Your task to perform on an android device: change the upload size in google photos Image 0: 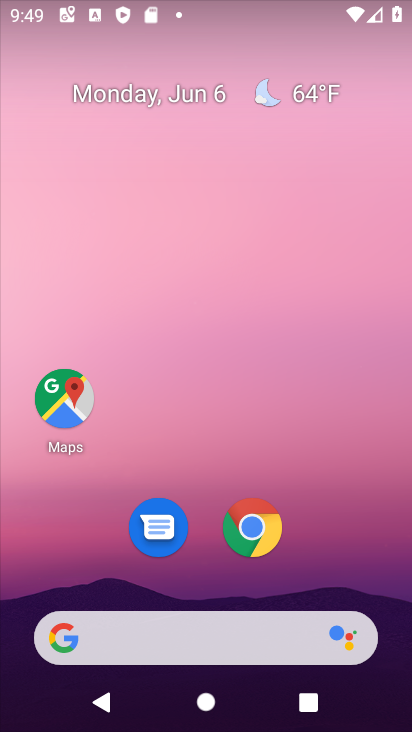
Step 0: drag from (220, 597) to (318, 217)
Your task to perform on an android device: change the upload size in google photos Image 1: 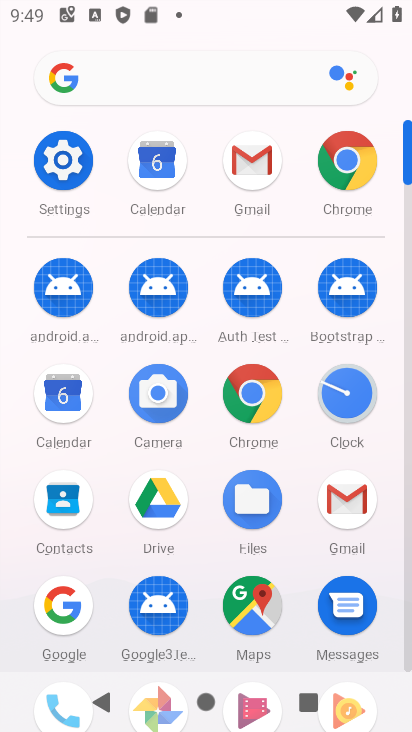
Step 1: drag from (278, 547) to (300, 301)
Your task to perform on an android device: change the upload size in google photos Image 2: 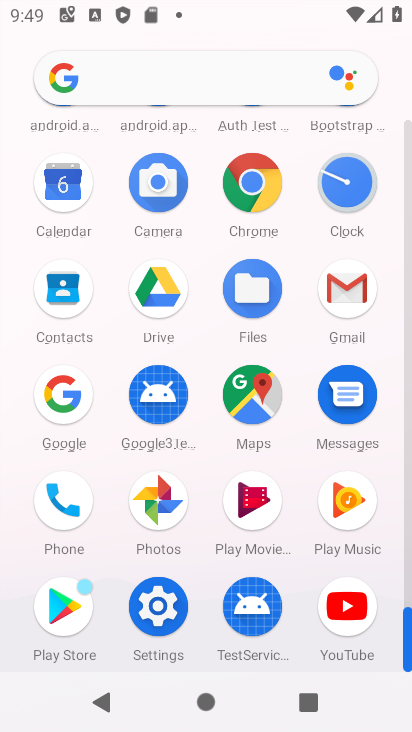
Step 2: click (137, 524)
Your task to perform on an android device: change the upload size in google photos Image 3: 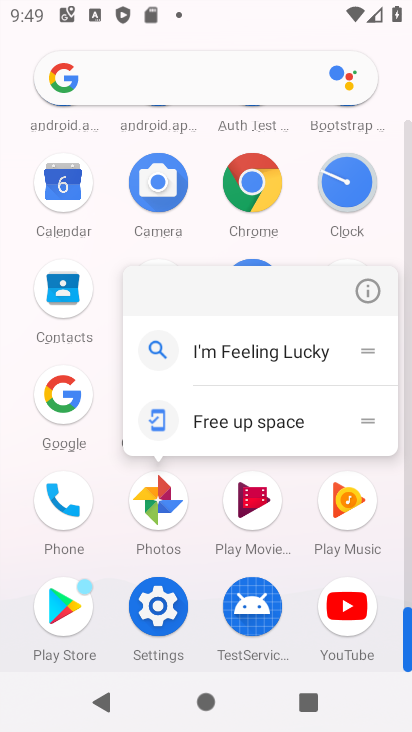
Step 3: click (137, 524)
Your task to perform on an android device: change the upload size in google photos Image 4: 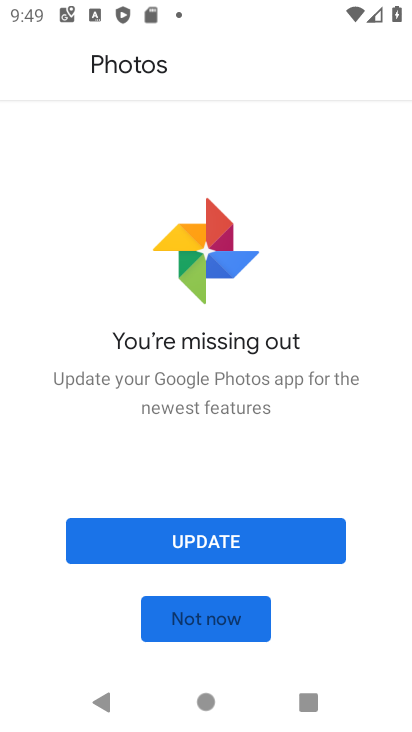
Step 4: click (226, 628)
Your task to perform on an android device: change the upload size in google photos Image 5: 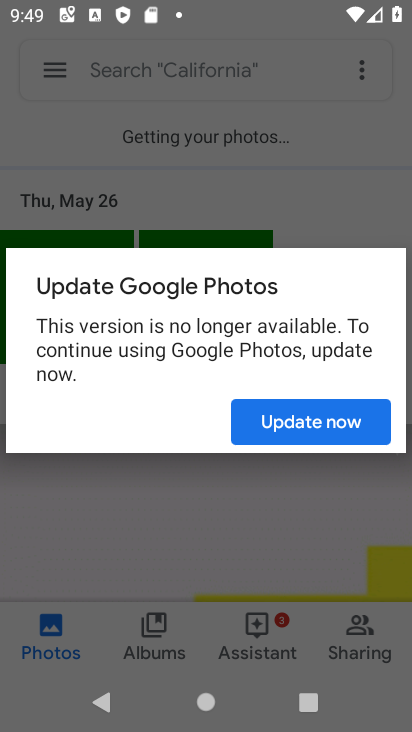
Step 5: task complete